Your task to perform on an android device: When is my next appointment? Image 0: 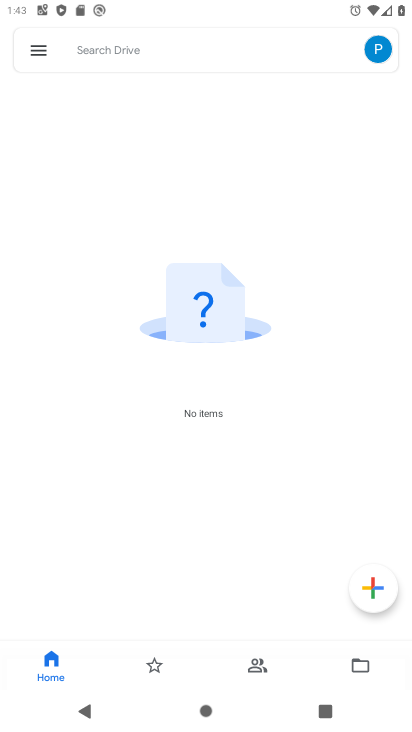
Step 0: press home button
Your task to perform on an android device: When is my next appointment? Image 1: 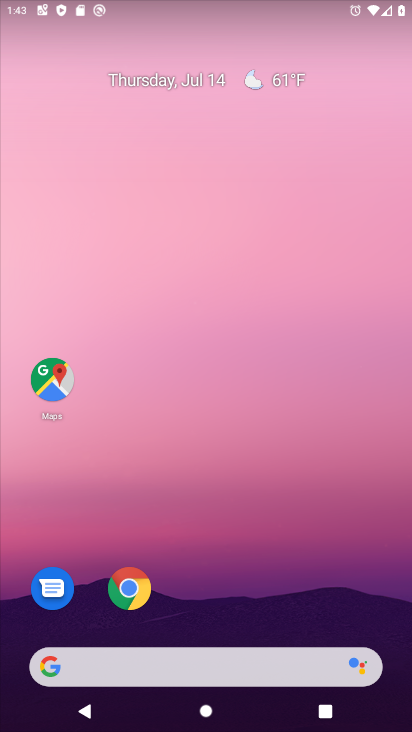
Step 1: drag from (289, 619) to (299, 98)
Your task to perform on an android device: When is my next appointment? Image 2: 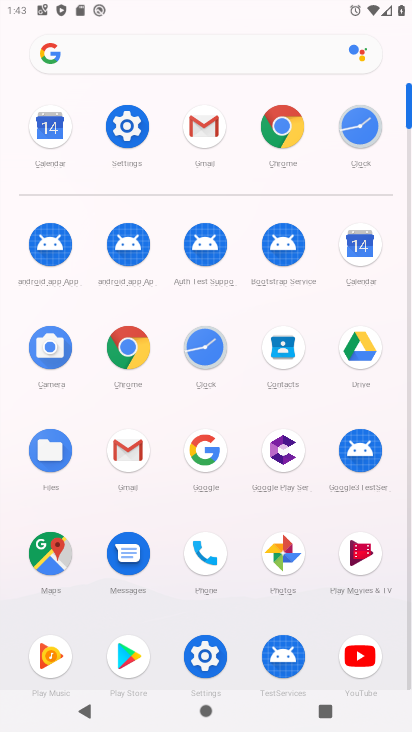
Step 2: click (368, 235)
Your task to perform on an android device: When is my next appointment? Image 3: 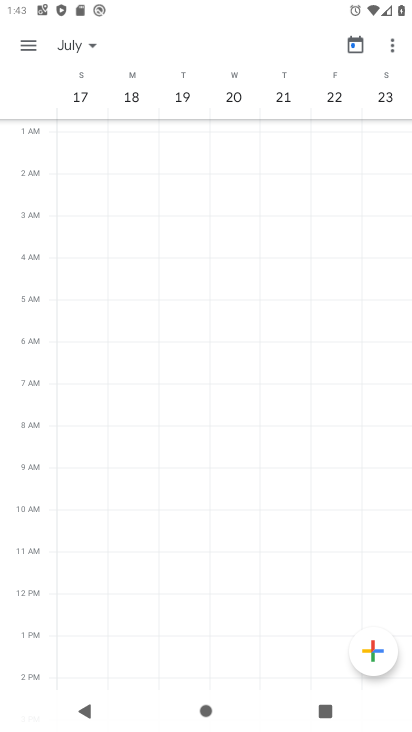
Step 3: drag from (85, 96) to (309, 118)
Your task to perform on an android device: When is my next appointment? Image 4: 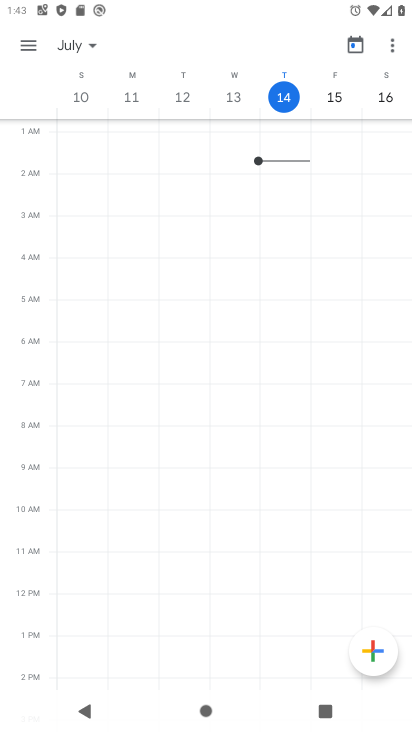
Step 4: click (195, 90)
Your task to perform on an android device: When is my next appointment? Image 5: 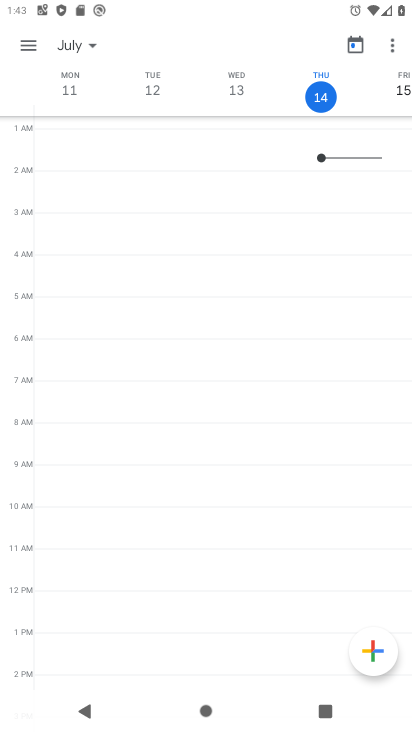
Step 5: task complete